Your task to perform on an android device: turn on data saver in the chrome app Image 0: 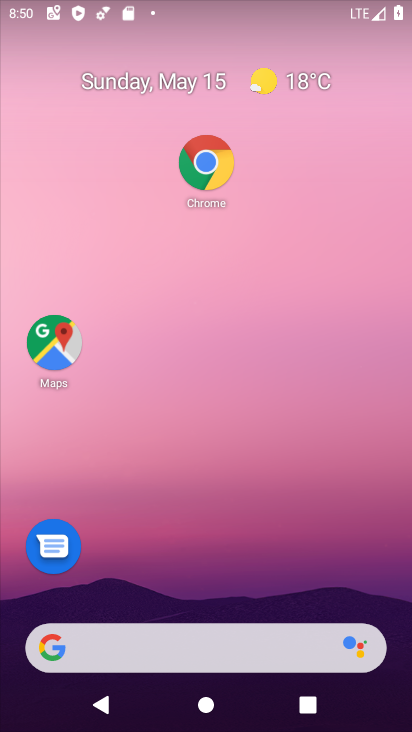
Step 0: drag from (260, 614) to (304, 215)
Your task to perform on an android device: turn on data saver in the chrome app Image 1: 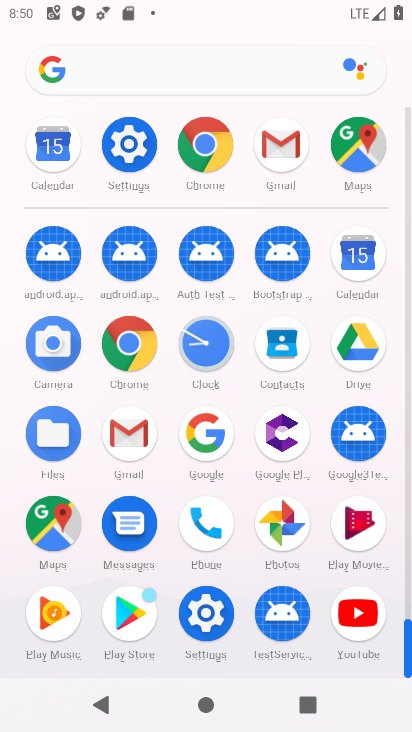
Step 1: click (197, 149)
Your task to perform on an android device: turn on data saver in the chrome app Image 2: 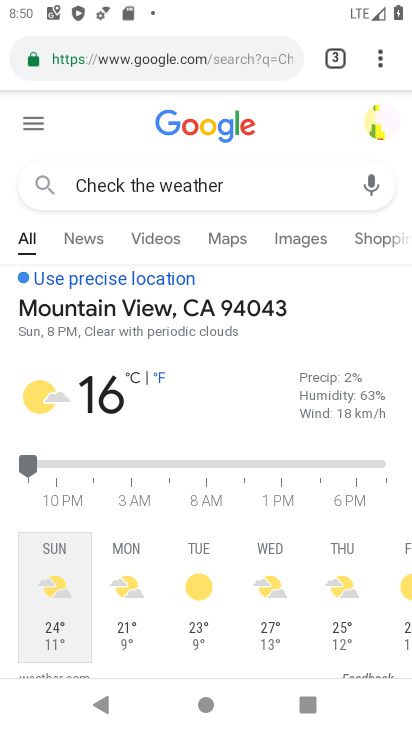
Step 2: click (363, 58)
Your task to perform on an android device: turn on data saver in the chrome app Image 3: 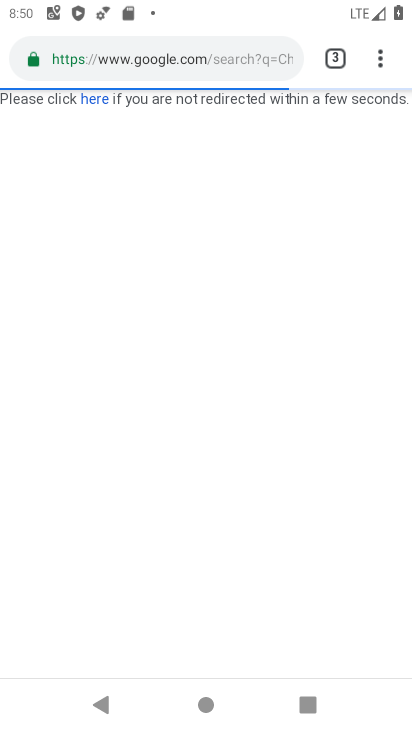
Step 3: click (378, 62)
Your task to perform on an android device: turn on data saver in the chrome app Image 4: 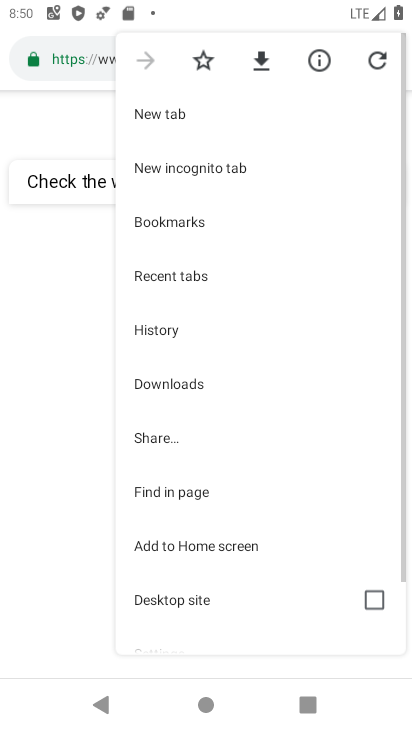
Step 4: drag from (212, 536) to (287, 198)
Your task to perform on an android device: turn on data saver in the chrome app Image 5: 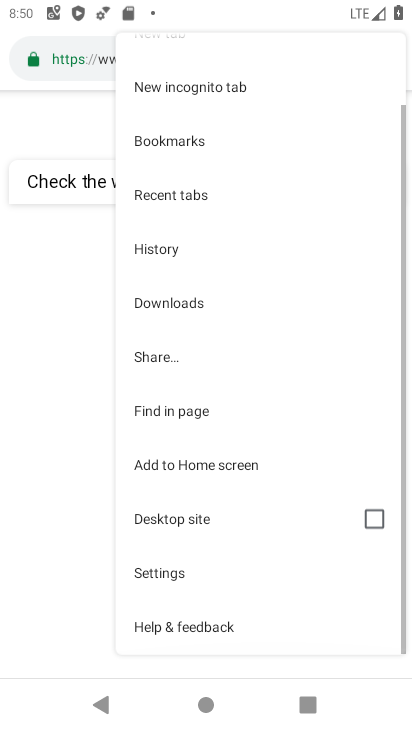
Step 5: click (195, 566)
Your task to perform on an android device: turn on data saver in the chrome app Image 6: 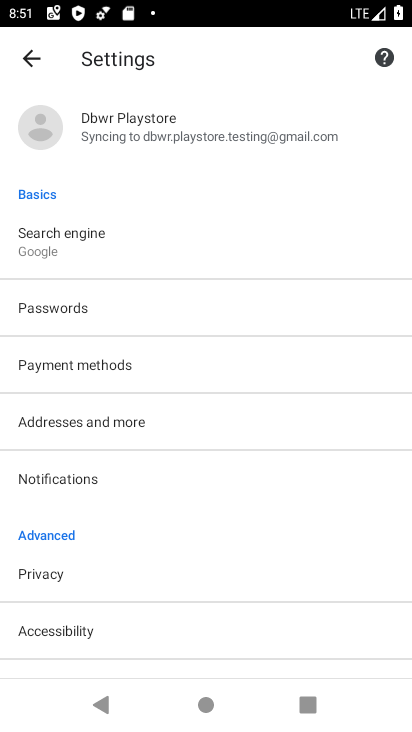
Step 6: drag from (163, 606) to (222, 309)
Your task to perform on an android device: turn on data saver in the chrome app Image 7: 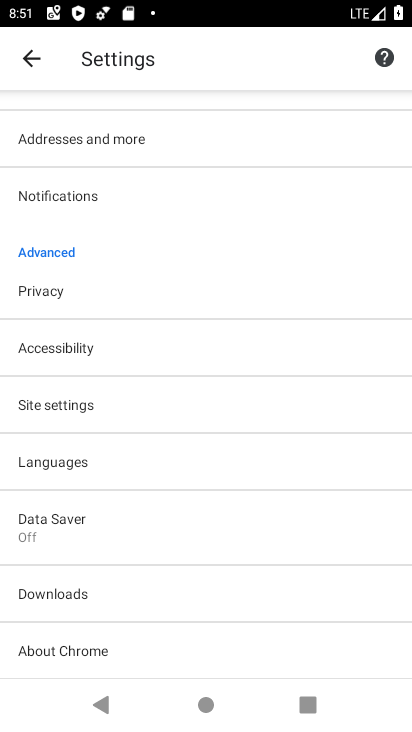
Step 7: click (110, 526)
Your task to perform on an android device: turn on data saver in the chrome app Image 8: 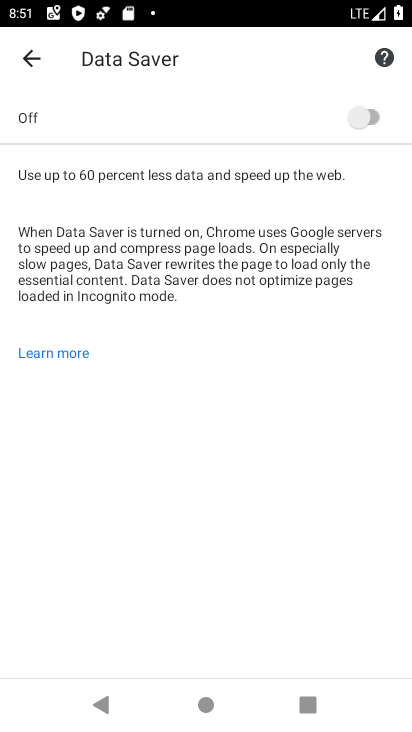
Step 8: click (379, 106)
Your task to perform on an android device: turn on data saver in the chrome app Image 9: 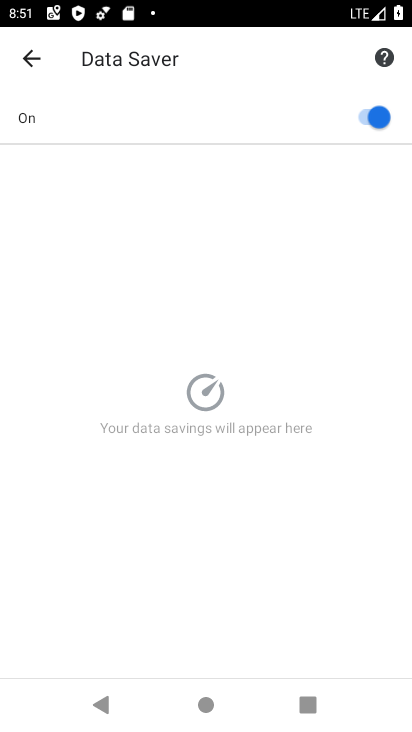
Step 9: task complete